Your task to perform on an android device: toggle notification dots Image 0: 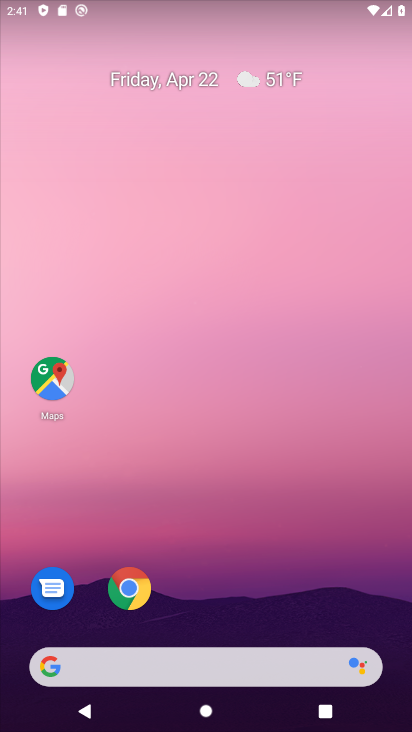
Step 0: drag from (319, 615) to (360, 23)
Your task to perform on an android device: toggle notification dots Image 1: 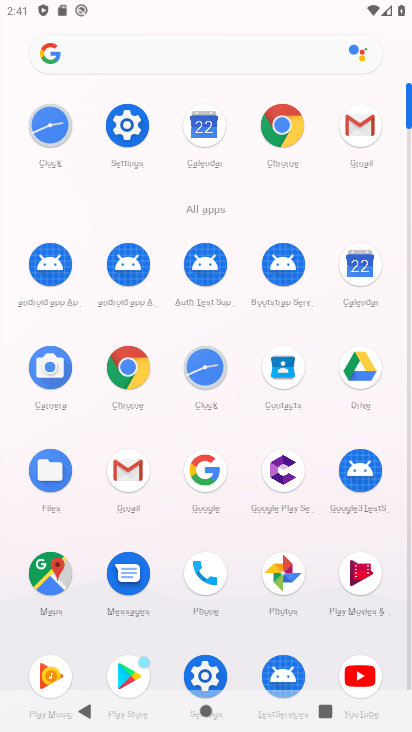
Step 1: click (125, 135)
Your task to perform on an android device: toggle notification dots Image 2: 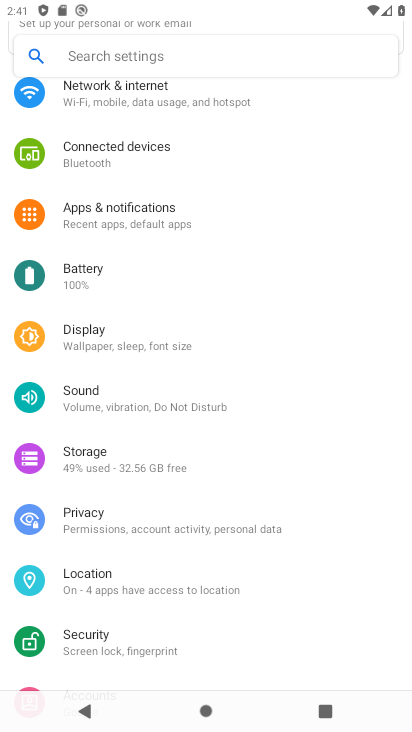
Step 2: click (137, 215)
Your task to perform on an android device: toggle notification dots Image 3: 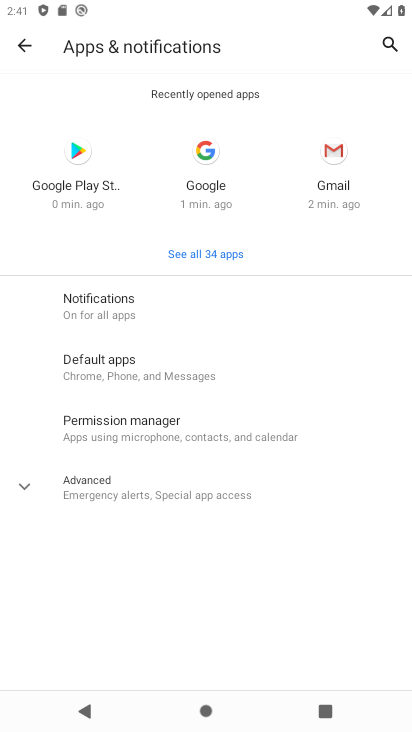
Step 3: click (111, 313)
Your task to perform on an android device: toggle notification dots Image 4: 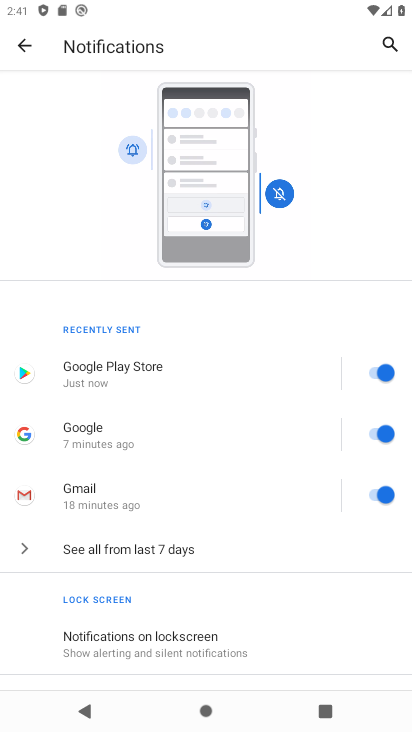
Step 4: drag from (172, 614) to (191, 237)
Your task to perform on an android device: toggle notification dots Image 5: 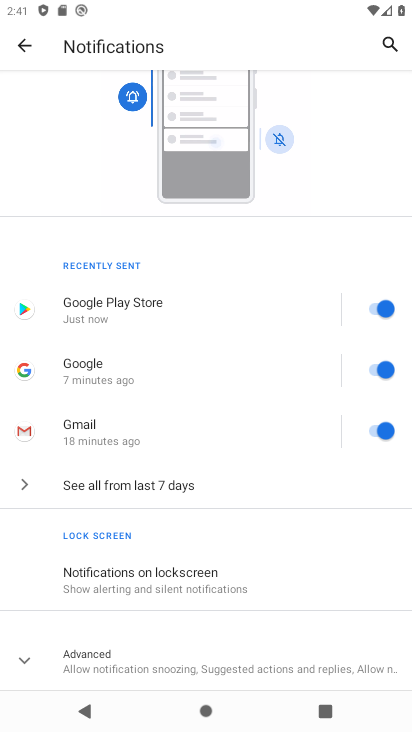
Step 5: click (33, 662)
Your task to perform on an android device: toggle notification dots Image 6: 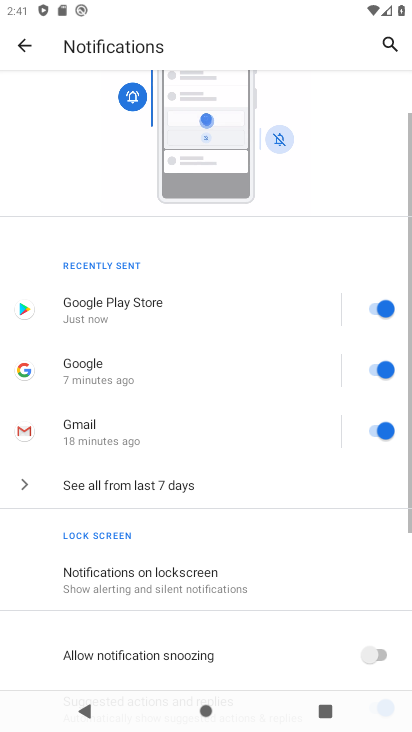
Step 6: drag from (231, 545) to (241, 163)
Your task to perform on an android device: toggle notification dots Image 7: 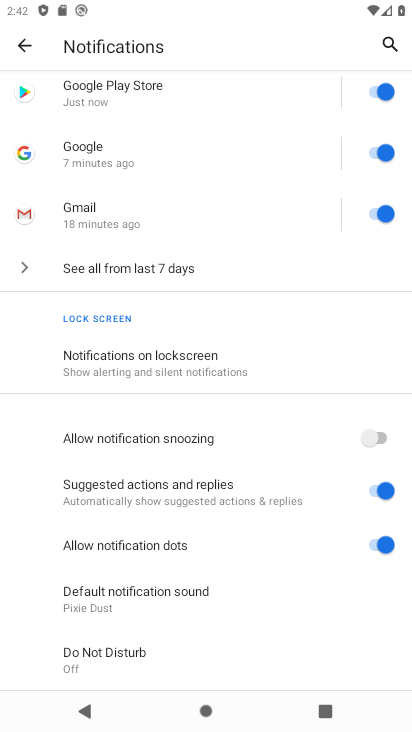
Step 7: click (384, 548)
Your task to perform on an android device: toggle notification dots Image 8: 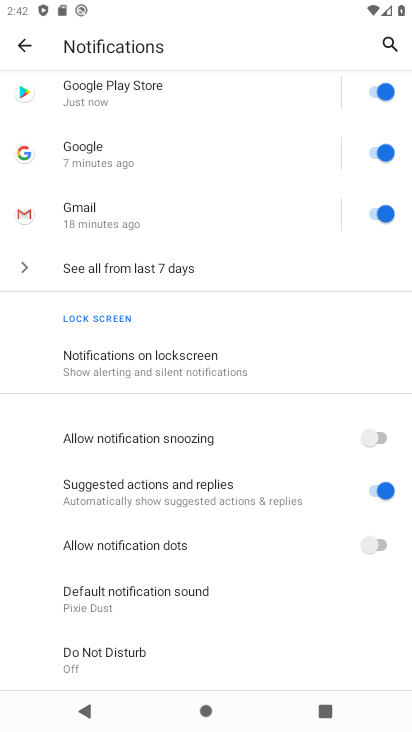
Step 8: task complete